Your task to perform on an android device: Open the Play Movies app and select the watchlist tab. Image 0: 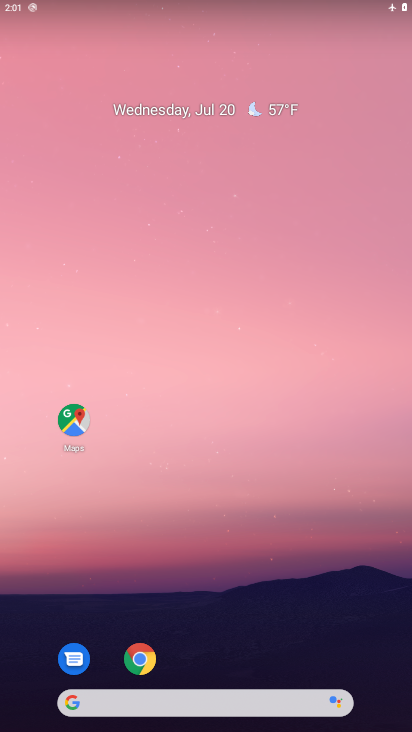
Step 0: drag from (35, 706) to (267, 128)
Your task to perform on an android device: Open the Play Movies app and select the watchlist tab. Image 1: 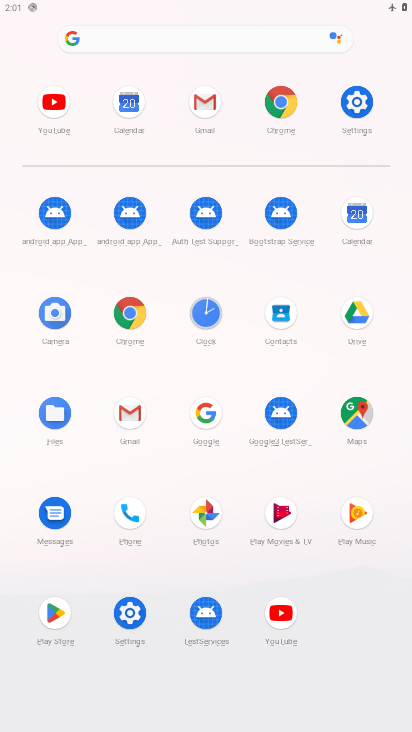
Step 1: click (272, 506)
Your task to perform on an android device: Open the Play Movies app and select the watchlist tab. Image 2: 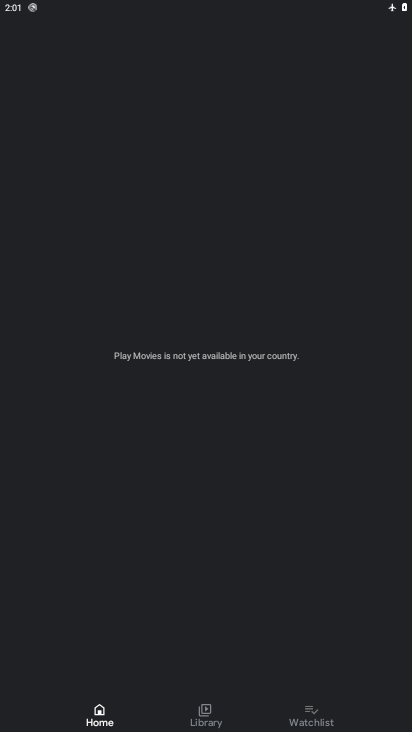
Step 2: click (307, 720)
Your task to perform on an android device: Open the Play Movies app and select the watchlist tab. Image 3: 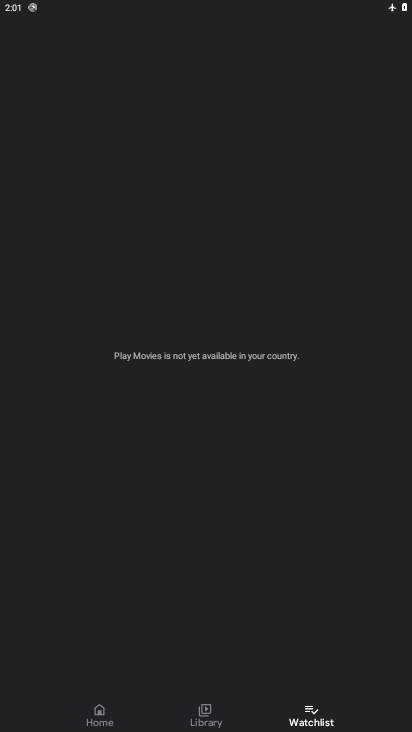
Step 3: task complete